Your task to perform on an android device: Open calendar and show me the second week of next month Image 0: 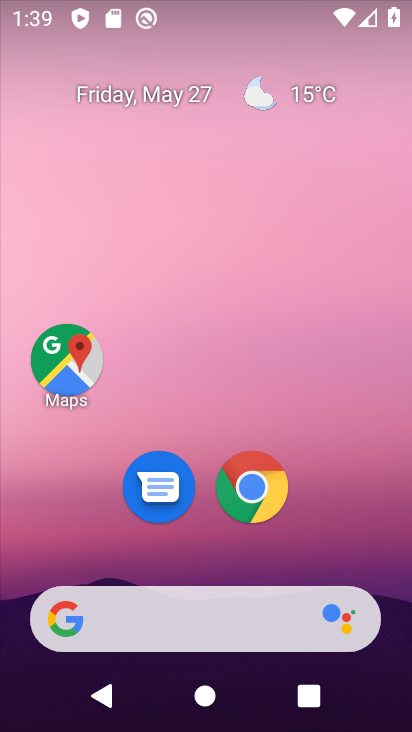
Step 0: drag from (343, 495) to (184, 161)
Your task to perform on an android device: Open calendar and show me the second week of next month Image 1: 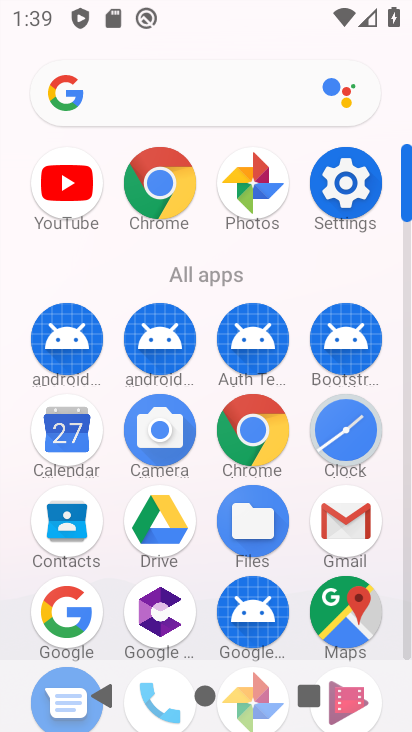
Step 1: click (77, 442)
Your task to perform on an android device: Open calendar and show me the second week of next month Image 2: 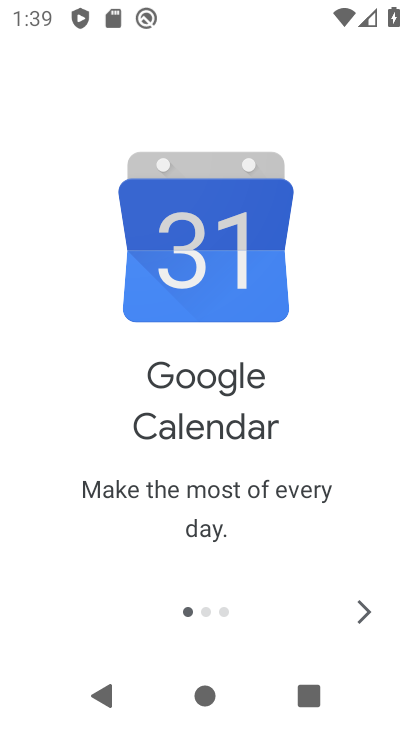
Step 2: click (372, 603)
Your task to perform on an android device: Open calendar and show me the second week of next month Image 3: 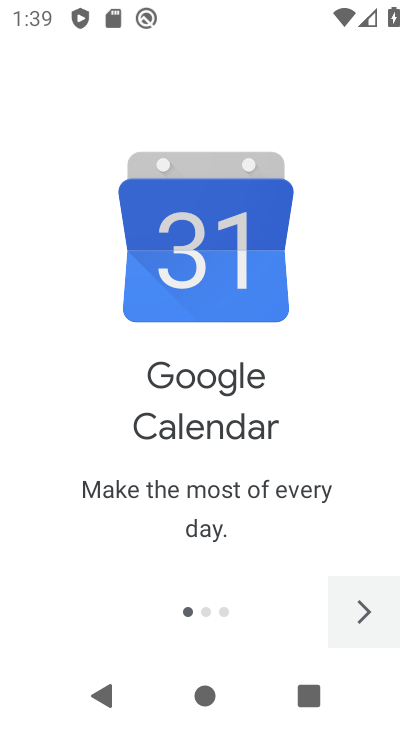
Step 3: click (371, 603)
Your task to perform on an android device: Open calendar and show me the second week of next month Image 4: 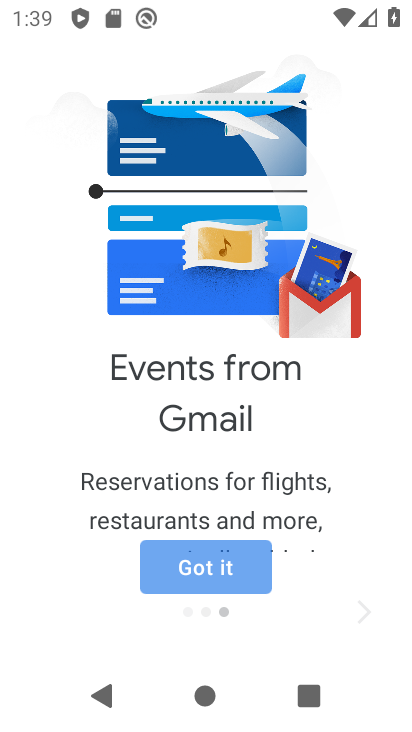
Step 4: click (371, 603)
Your task to perform on an android device: Open calendar and show me the second week of next month Image 5: 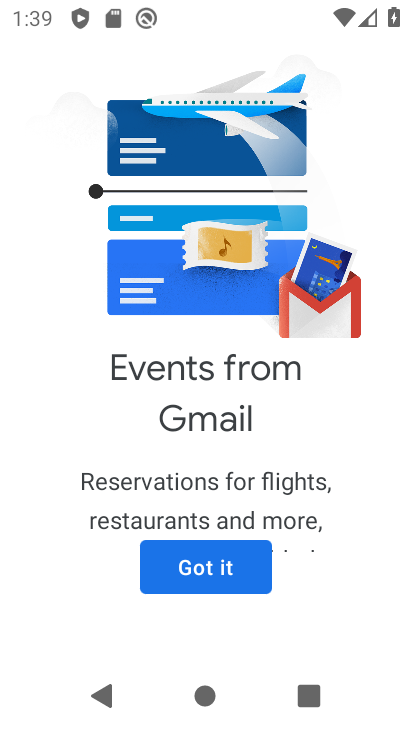
Step 5: click (251, 564)
Your task to perform on an android device: Open calendar and show me the second week of next month Image 6: 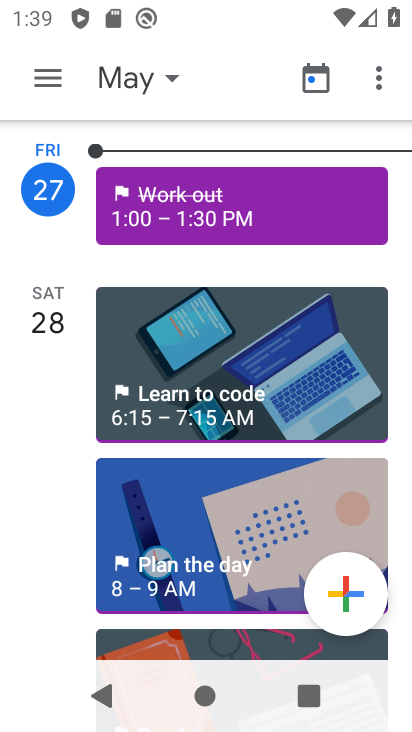
Step 6: click (158, 84)
Your task to perform on an android device: Open calendar and show me the second week of next month Image 7: 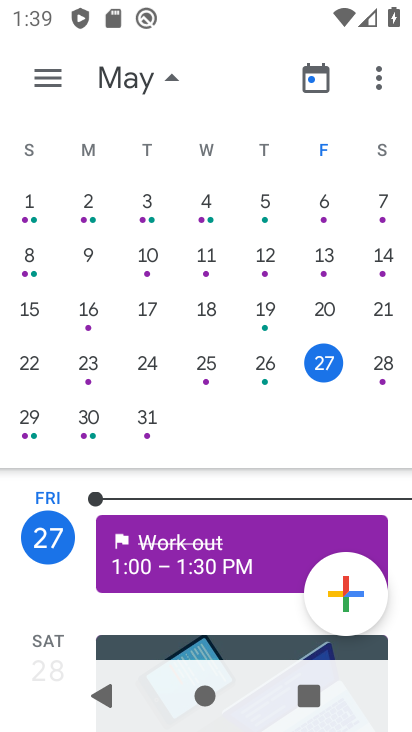
Step 7: drag from (377, 328) to (80, 375)
Your task to perform on an android device: Open calendar and show me the second week of next month Image 8: 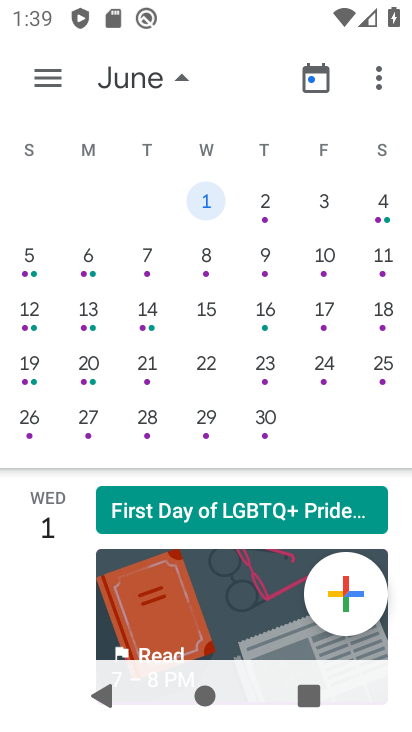
Step 8: click (33, 328)
Your task to perform on an android device: Open calendar and show me the second week of next month Image 9: 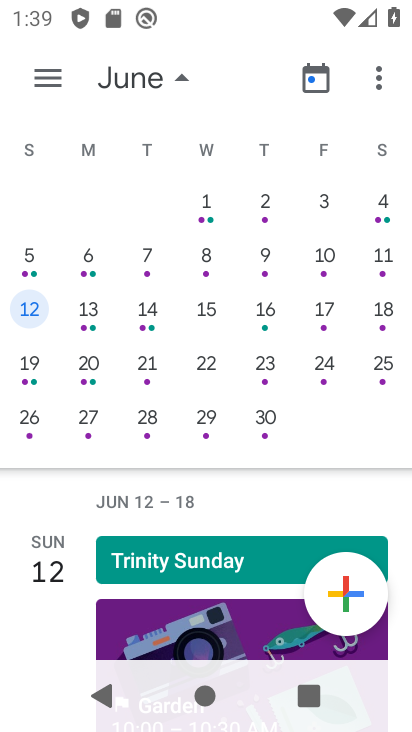
Step 9: drag from (270, 556) to (209, 173)
Your task to perform on an android device: Open calendar and show me the second week of next month Image 10: 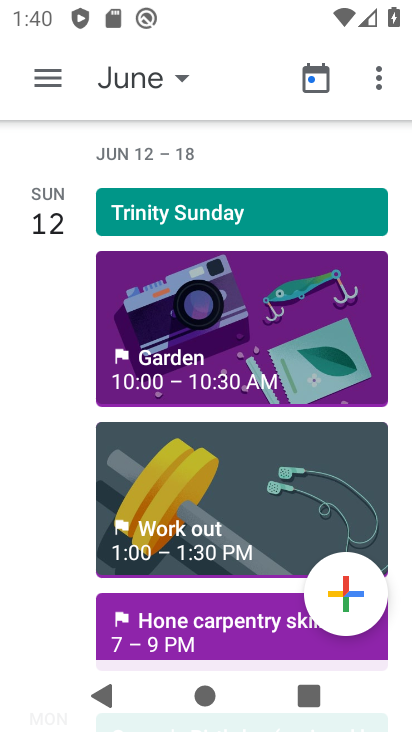
Step 10: click (63, 75)
Your task to perform on an android device: Open calendar and show me the second week of next month Image 11: 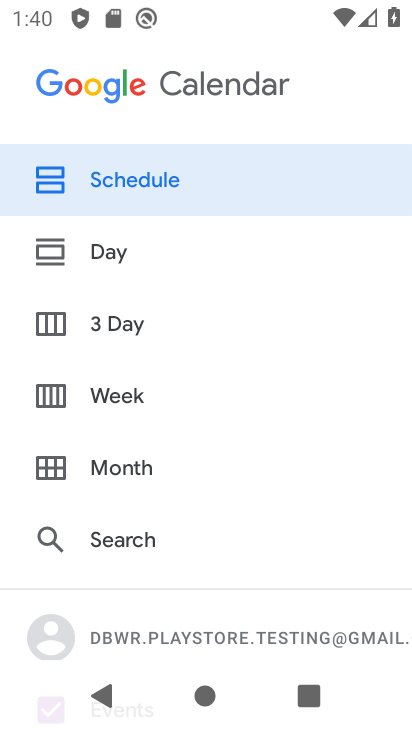
Step 11: click (144, 374)
Your task to perform on an android device: Open calendar and show me the second week of next month Image 12: 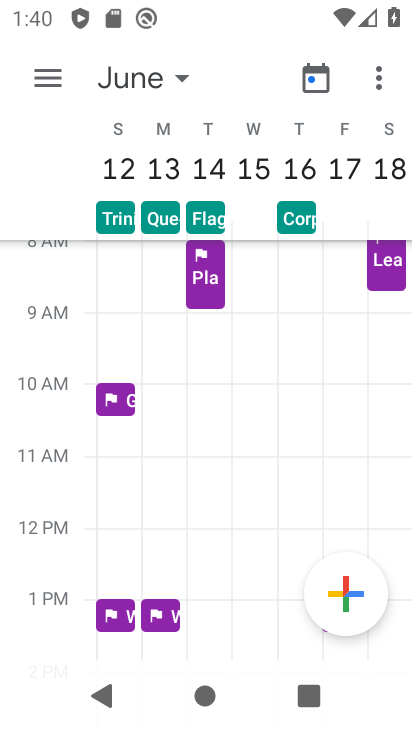
Step 12: task complete